Your task to perform on an android device: star an email in the gmail app Image 0: 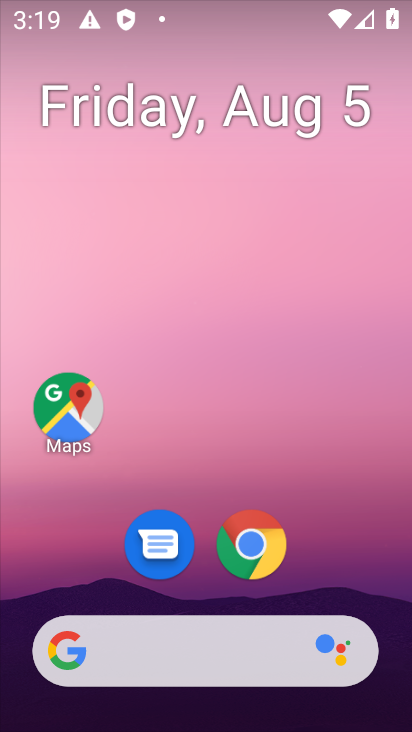
Step 0: drag from (181, 592) to (181, 284)
Your task to perform on an android device: star an email in the gmail app Image 1: 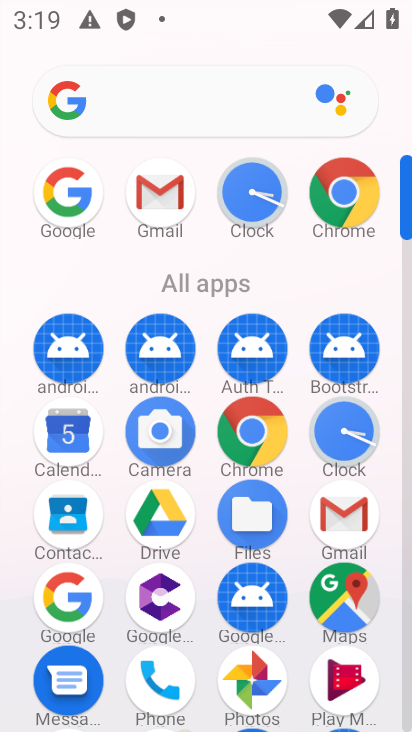
Step 1: click (344, 523)
Your task to perform on an android device: star an email in the gmail app Image 2: 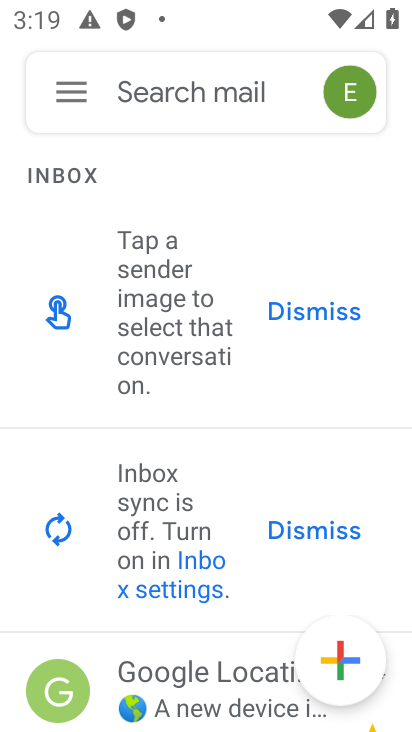
Step 2: drag from (156, 690) to (125, 347)
Your task to perform on an android device: star an email in the gmail app Image 3: 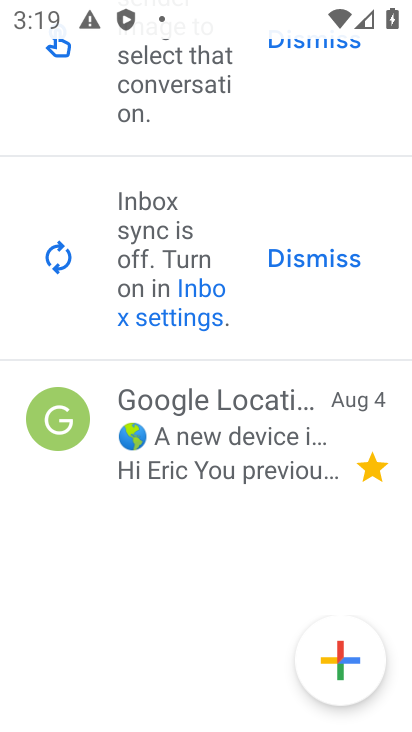
Step 3: click (374, 473)
Your task to perform on an android device: star an email in the gmail app Image 4: 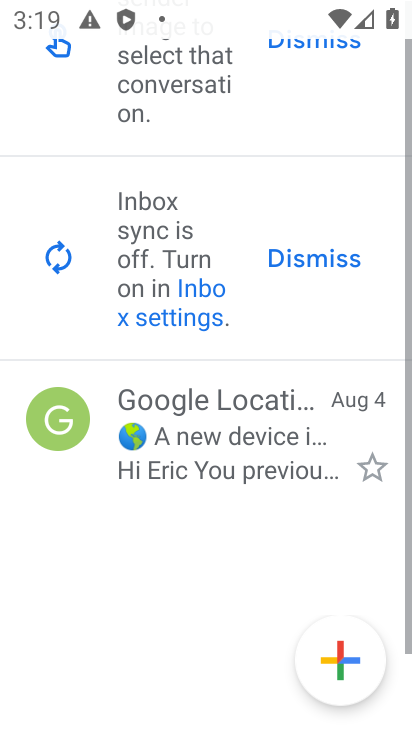
Step 4: click (374, 473)
Your task to perform on an android device: star an email in the gmail app Image 5: 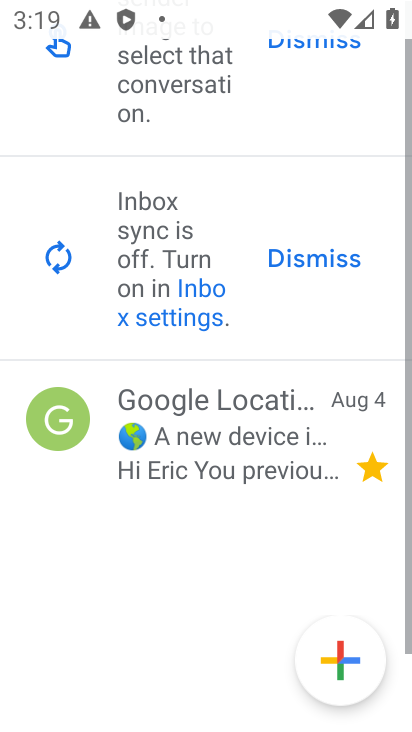
Step 5: task complete